Your task to perform on an android device: toggle notifications settings in the gmail app Image 0: 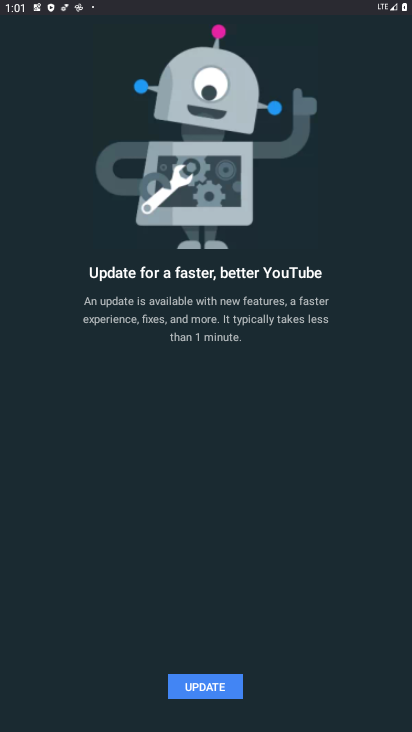
Step 0: press home button
Your task to perform on an android device: toggle notifications settings in the gmail app Image 1: 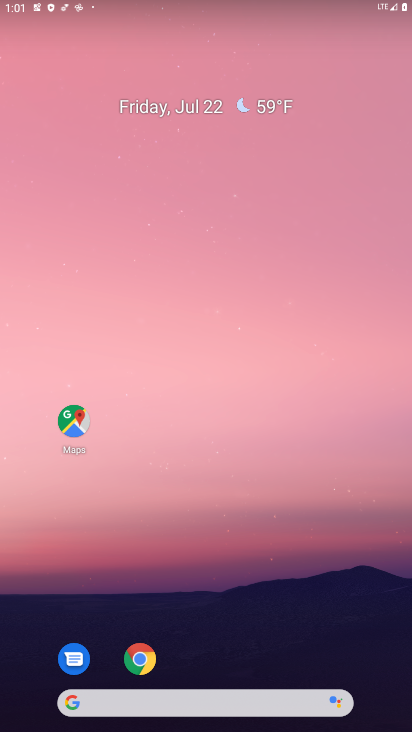
Step 1: drag from (282, 624) to (271, 9)
Your task to perform on an android device: toggle notifications settings in the gmail app Image 2: 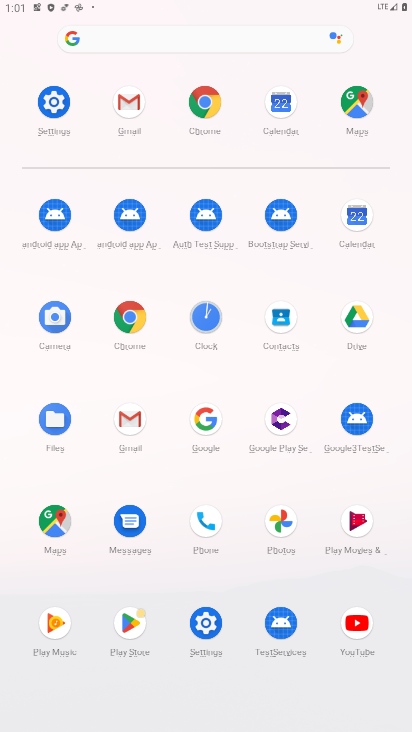
Step 2: click (142, 109)
Your task to perform on an android device: toggle notifications settings in the gmail app Image 3: 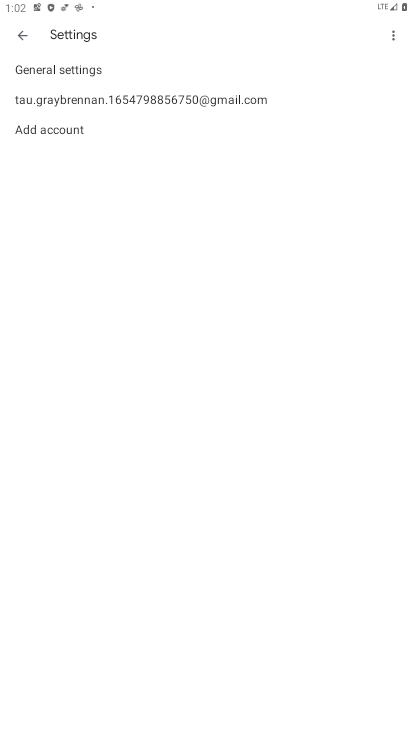
Step 3: click (26, 35)
Your task to perform on an android device: toggle notifications settings in the gmail app Image 4: 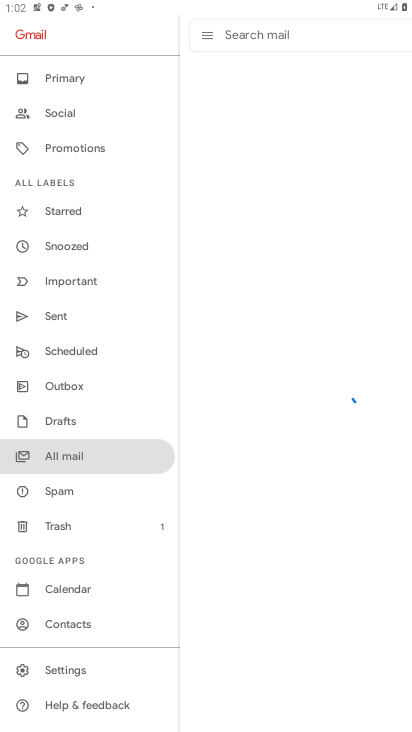
Step 4: drag from (111, 657) to (14, 313)
Your task to perform on an android device: toggle notifications settings in the gmail app Image 5: 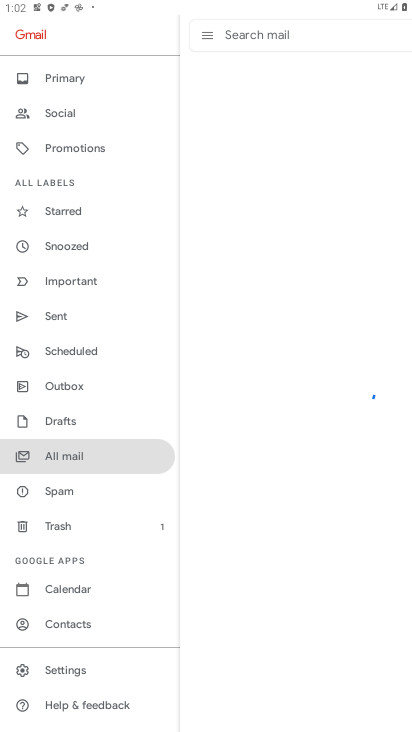
Step 5: click (84, 670)
Your task to perform on an android device: toggle notifications settings in the gmail app Image 6: 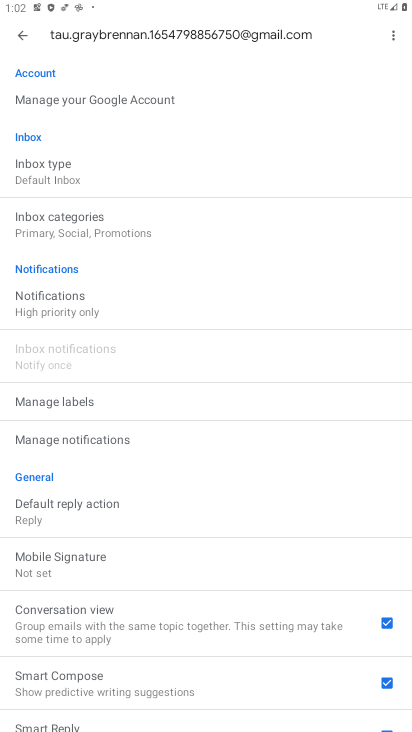
Step 6: click (83, 304)
Your task to perform on an android device: toggle notifications settings in the gmail app Image 7: 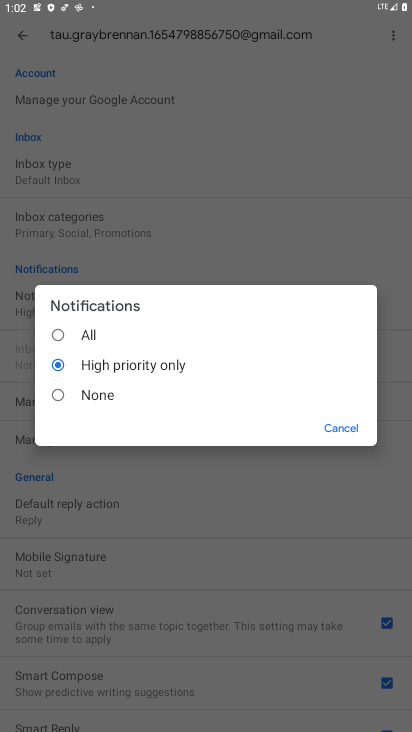
Step 7: click (85, 342)
Your task to perform on an android device: toggle notifications settings in the gmail app Image 8: 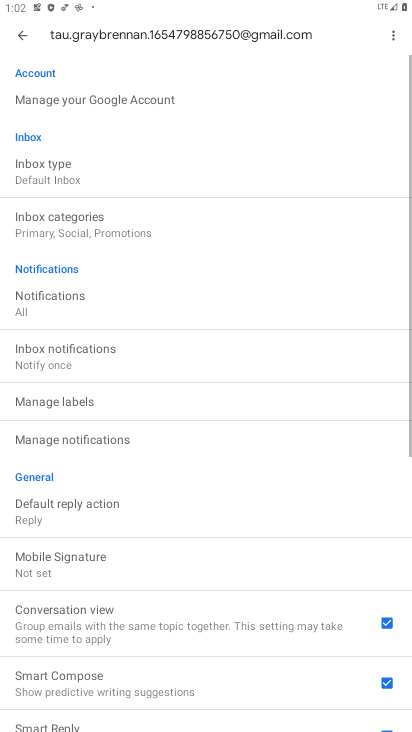
Step 8: task complete